Your task to perform on an android device: Open Youtube and go to "Your channel" Image 0: 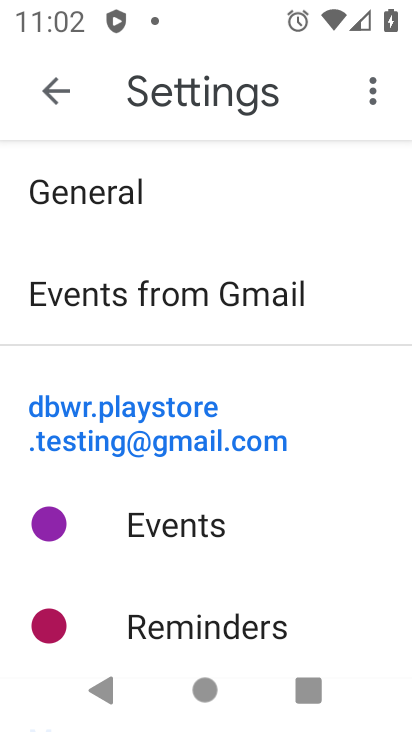
Step 0: press home button
Your task to perform on an android device: Open Youtube and go to "Your channel" Image 1: 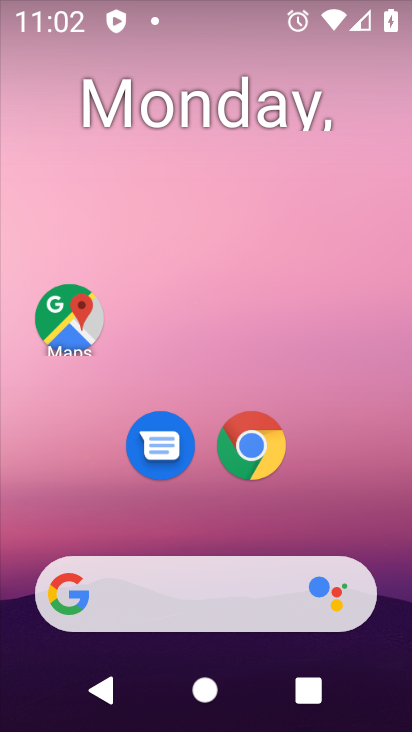
Step 1: drag from (312, 488) to (51, 88)
Your task to perform on an android device: Open Youtube and go to "Your channel" Image 2: 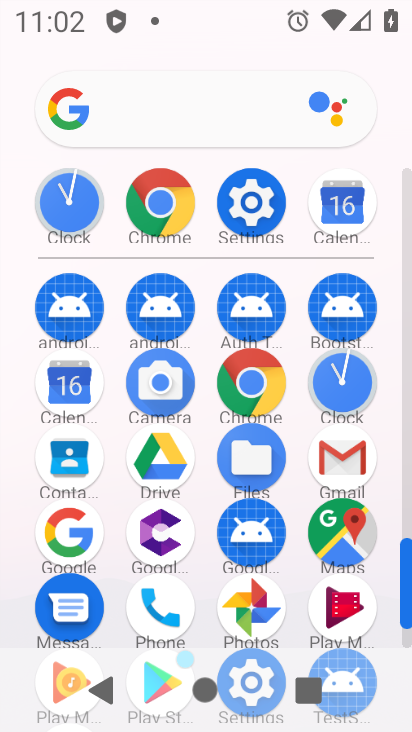
Step 2: drag from (292, 623) to (298, 175)
Your task to perform on an android device: Open Youtube and go to "Your channel" Image 3: 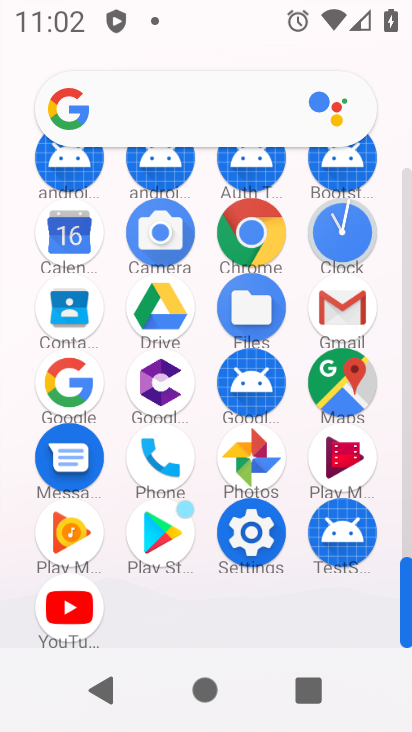
Step 3: click (63, 621)
Your task to perform on an android device: Open Youtube and go to "Your channel" Image 4: 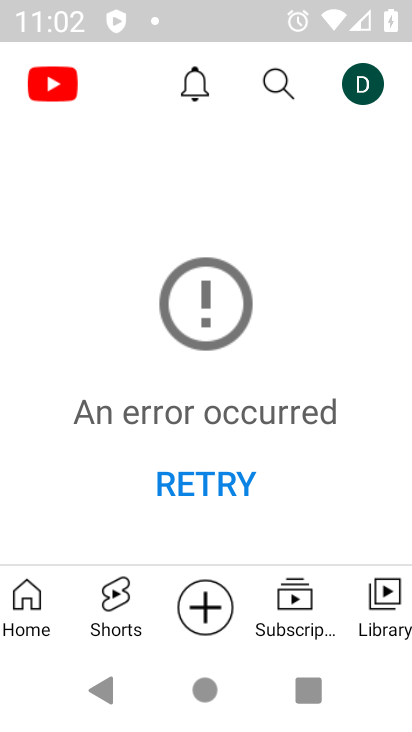
Step 4: click (358, 70)
Your task to perform on an android device: Open Youtube and go to "Your channel" Image 5: 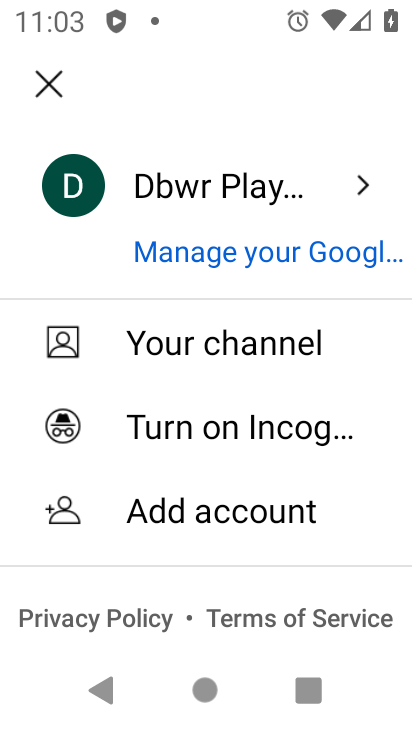
Step 5: click (123, 329)
Your task to perform on an android device: Open Youtube and go to "Your channel" Image 6: 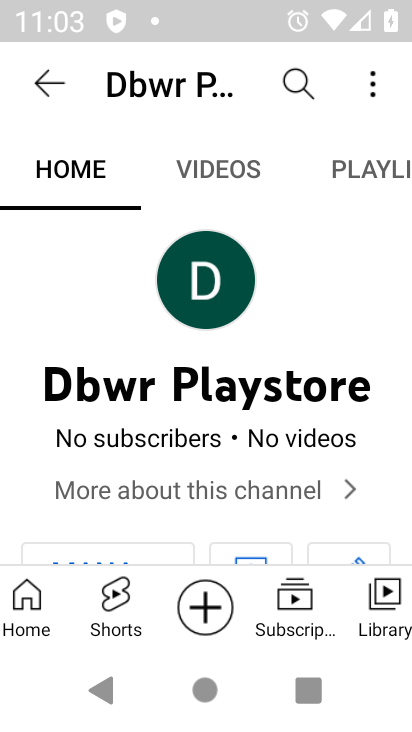
Step 6: task complete